Your task to perform on an android device: Open Yahoo.com Image 0: 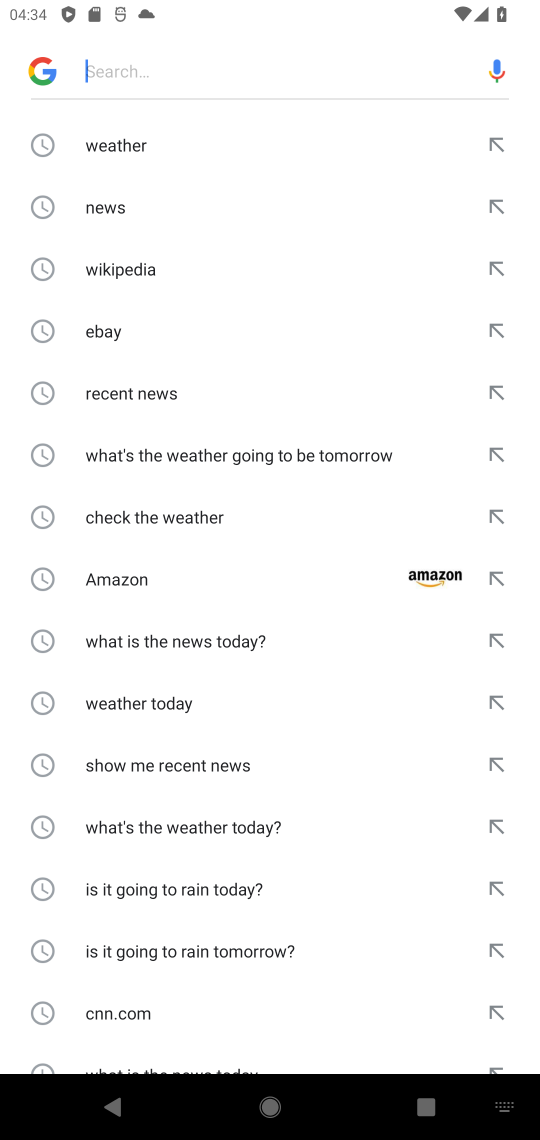
Step 0: press home button
Your task to perform on an android device: Open Yahoo.com Image 1: 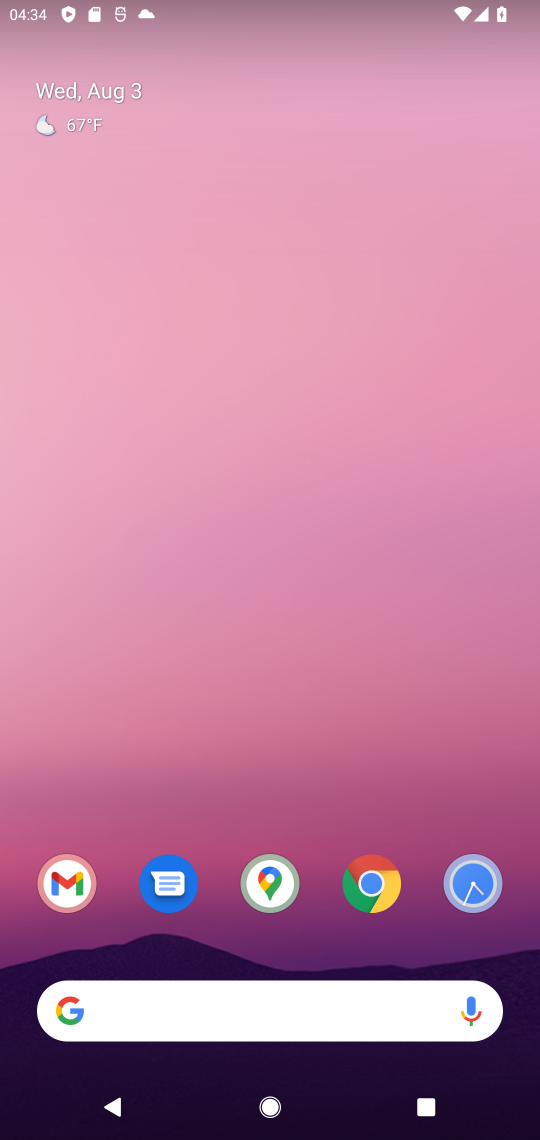
Step 1: drag from (259, 844) to (257, 18)
Your task to perform on an android device: Open Yahoo.com Image 2: 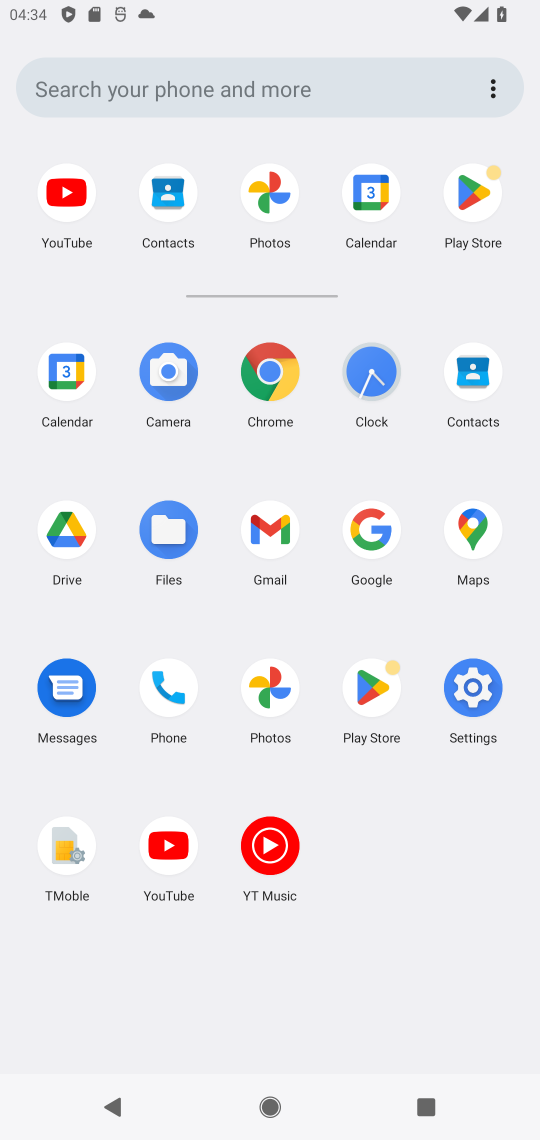
Step 2: click (279, 367)
Your task to perform on an android device: Open Yahoo.com Image 3: 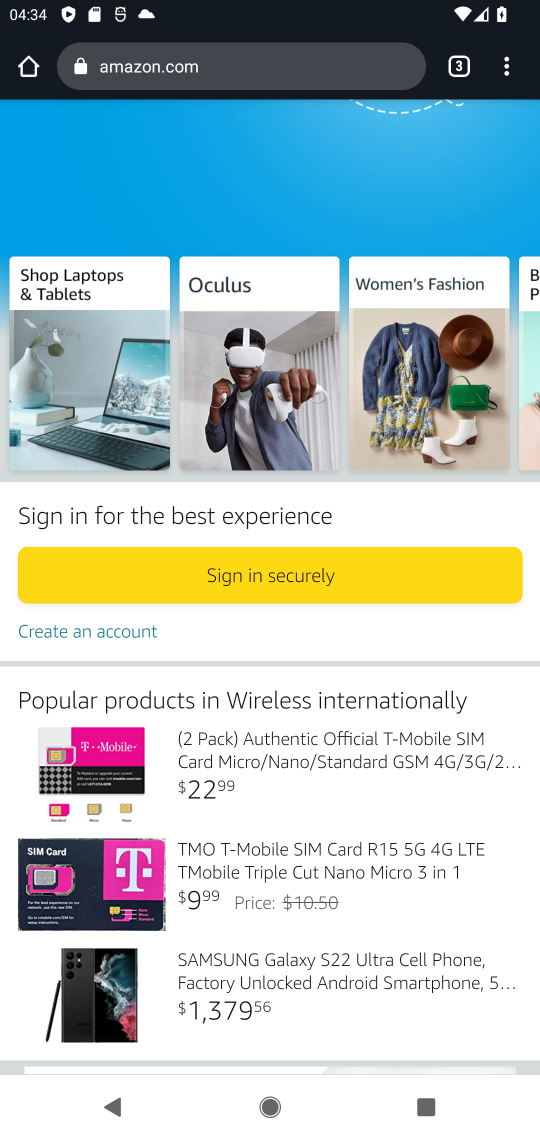
Step 3: click (227, 60)
Your task to perform on an android device: Open Yahoo.com Image 4: 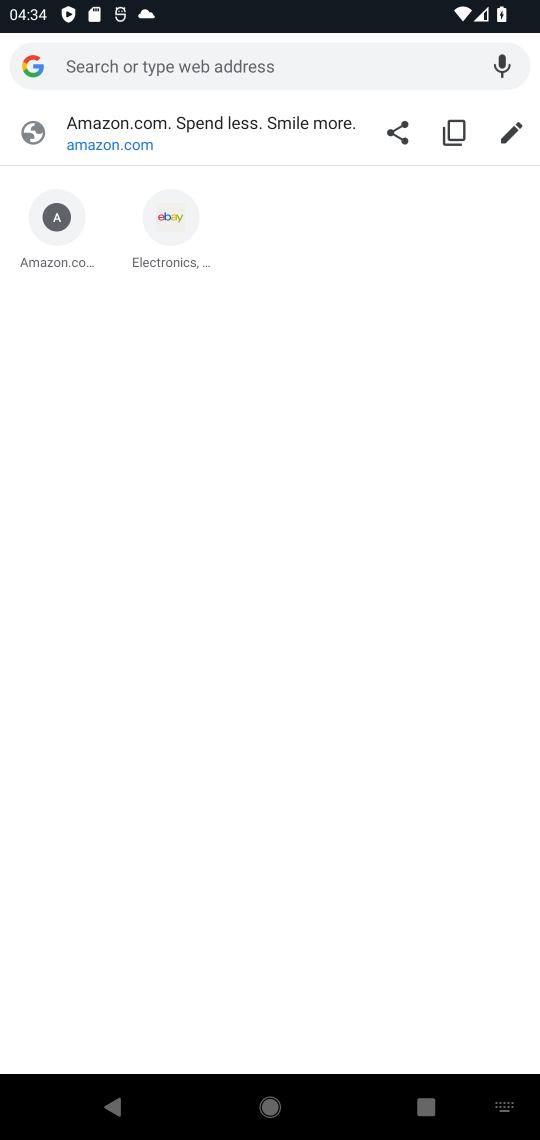
Step 4: type "yahoo.com"
Your task to perform on an android device: Open Yahoo.com Image 5: 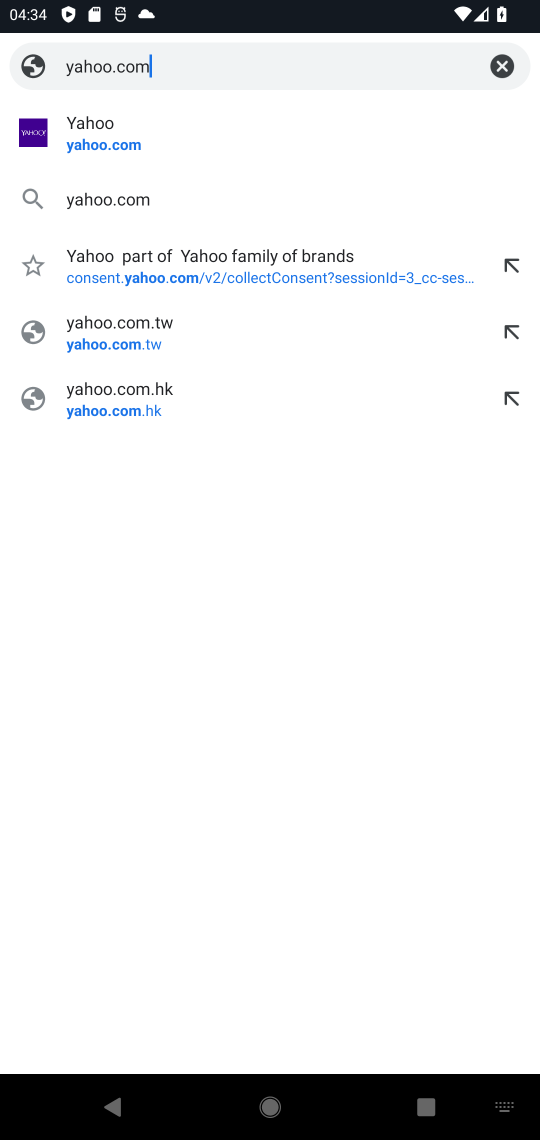
Step 5: click (81, 142)
Your task to perform on an android device: Open Yahoo.com Image 6: 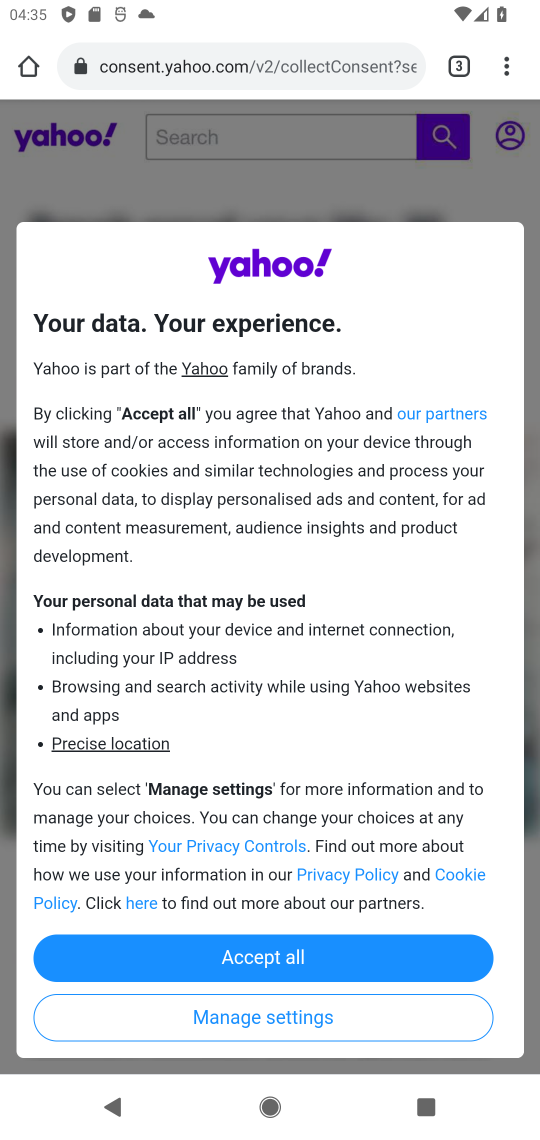
Step 6: task complete